Your task to perform on an android device: Open wifi settings Image 0: 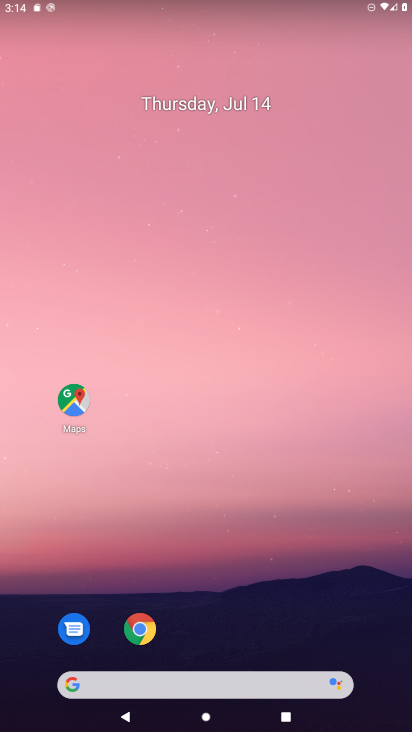
Step 0: press home button
Your task to perform on an android device: Open wifi settings Image 1: 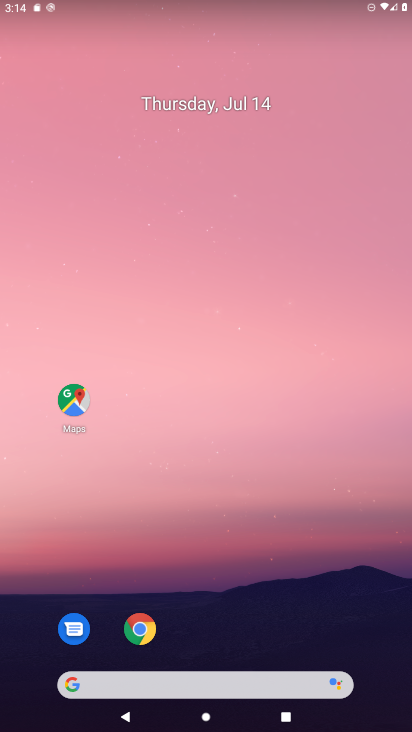
Step 1: drag from (216, 647) to (199, 44)
Your task to perform on an android device: Open wifi settings Image 2: 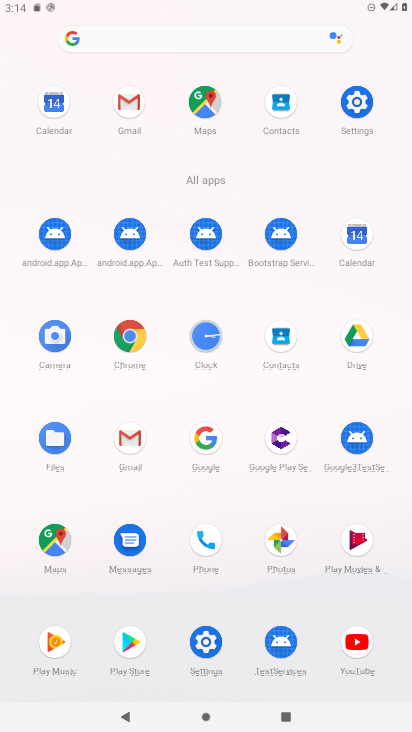
Step 2: drag from (259, 2) to (317, 525)
Your task to perform on an android device: Open wifi settings Image 3: 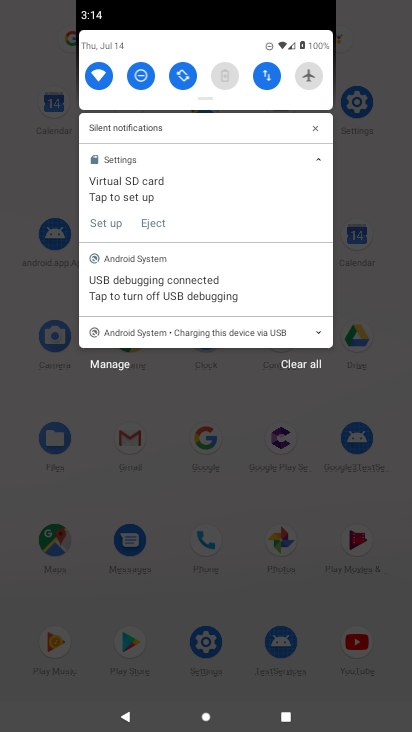
Step 3: click (101, 76)
Your task to perform on an android device: Open wifi settings Image 4: 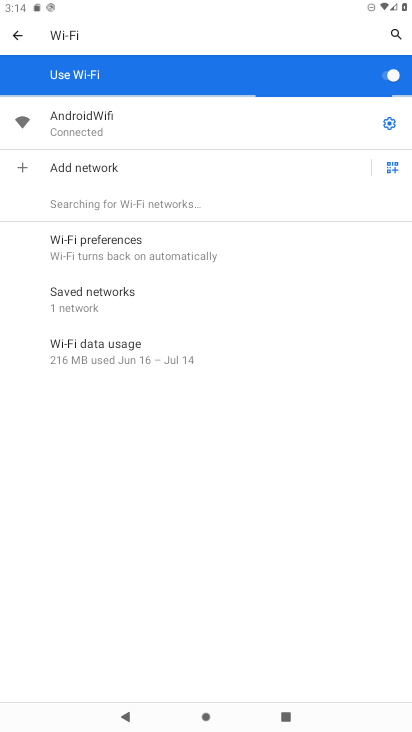
Step 4: task complete